Your task to perform on an android device: turn on the 24-hour format for clock Image 0: 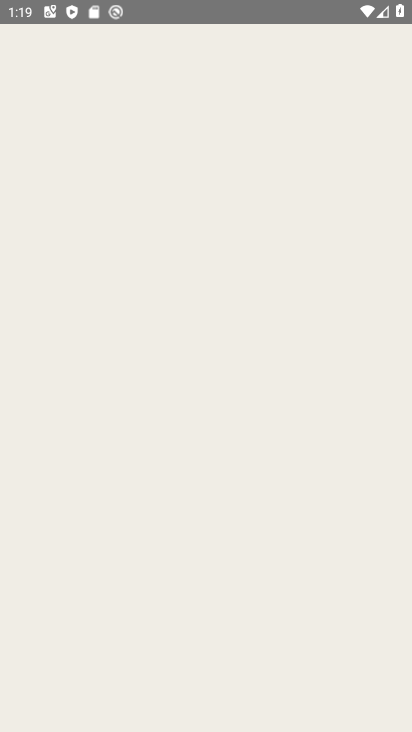
Step 0: press back button
Your task to perform on an android device: turn on the 24-hour format for clock Image 1: 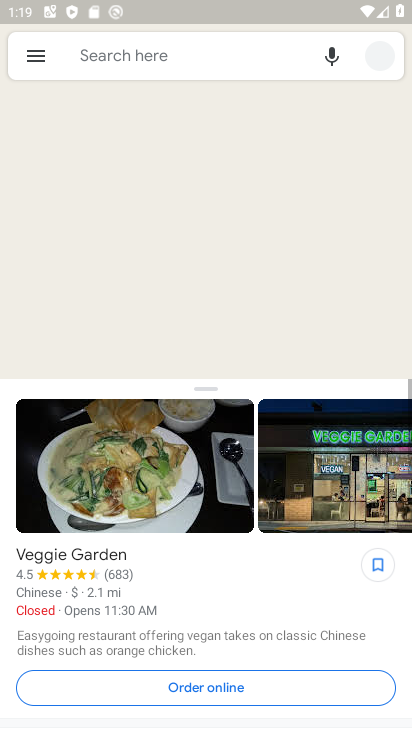
Step 1: press back button
Your task to perform on an android device: turn on the 24-hour format for clock Image 2: 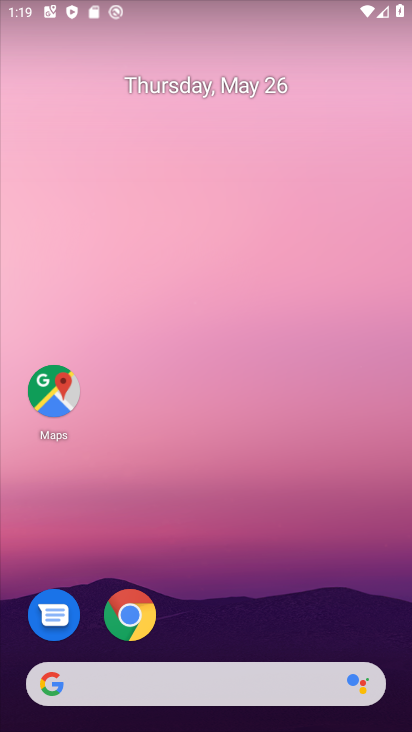
Step 2: drag from (246, 549) to (260, 99)
Your task to perform on an android device: turn on the 24-hour format for clock Image 3: 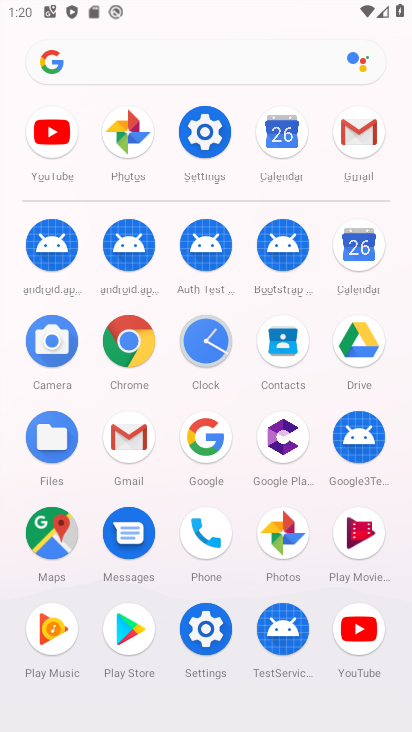
Step 3: click (208, 334)
Your task to perform on an android device: turn on the 24-hour format for clock Image 4: 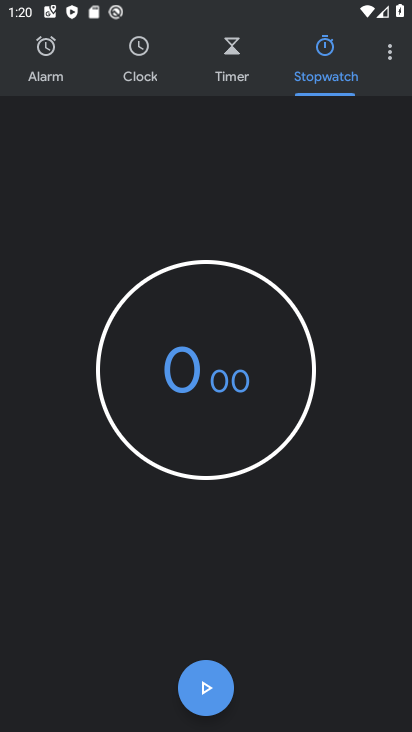
Step 4: click (389, 48)
Your task to perform on an android device: turn on the 24-hour format for clock Image 5: 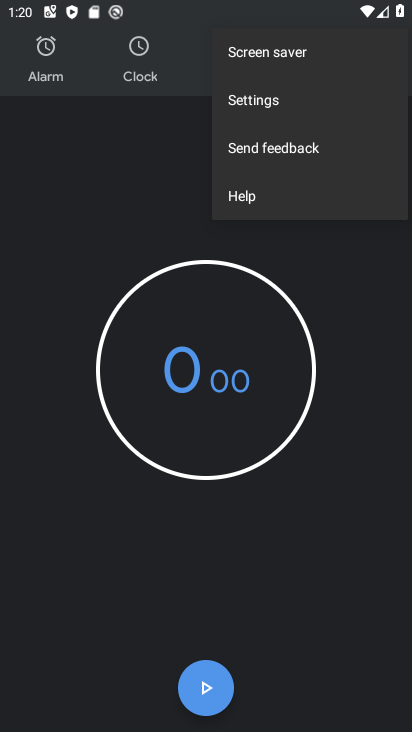
Step 5: click (252, 95)
Your task to perform on an android device: turn on the 24-hour format for clock Image 6: 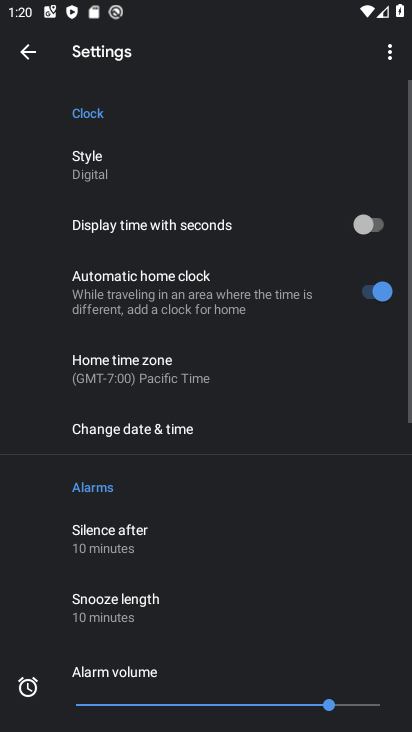
Step 6: click (118, 430)
Your task to perform on an android device: turn on the 24-hour format for clock Image 7: 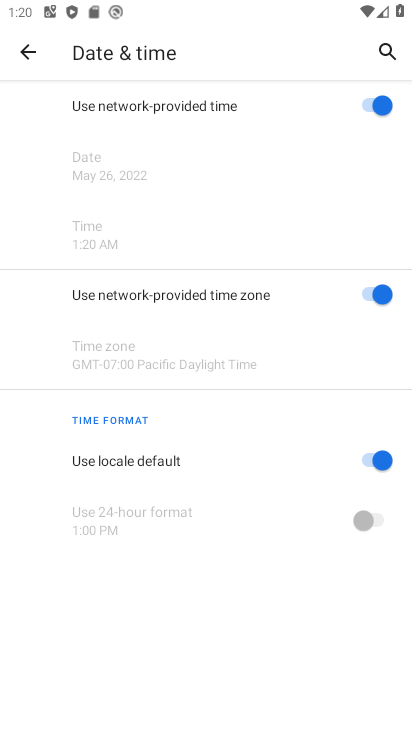
Step 7: click (370, 451)
Your task to perform on an android device: turn on the 24-hour format for clock Image 8: 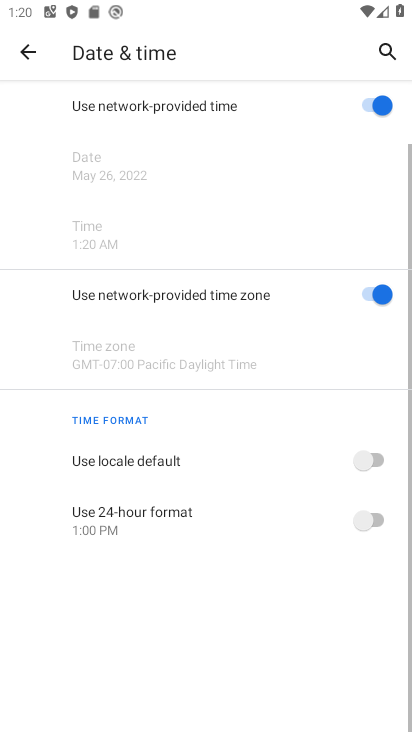
Step 8: click (377, 518)
Your task to perform on an android device: turn on the 24-hour format for clock Image 9: 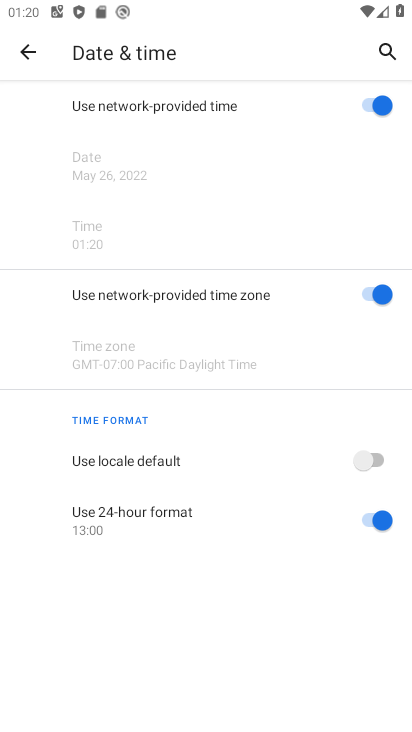
Step 9: task complete